Your task to perform on an android device: Go to privacy settings Image 0: 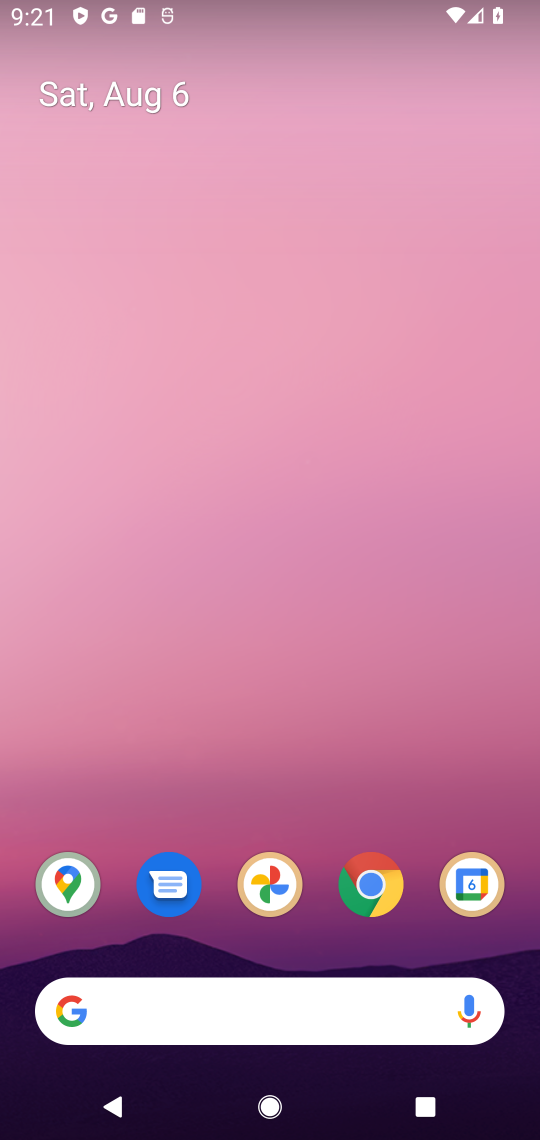
Step 0: drag from (421, 951) to (374, 204)
Your task to perform on an android device: Go to privacy settings Image 1: 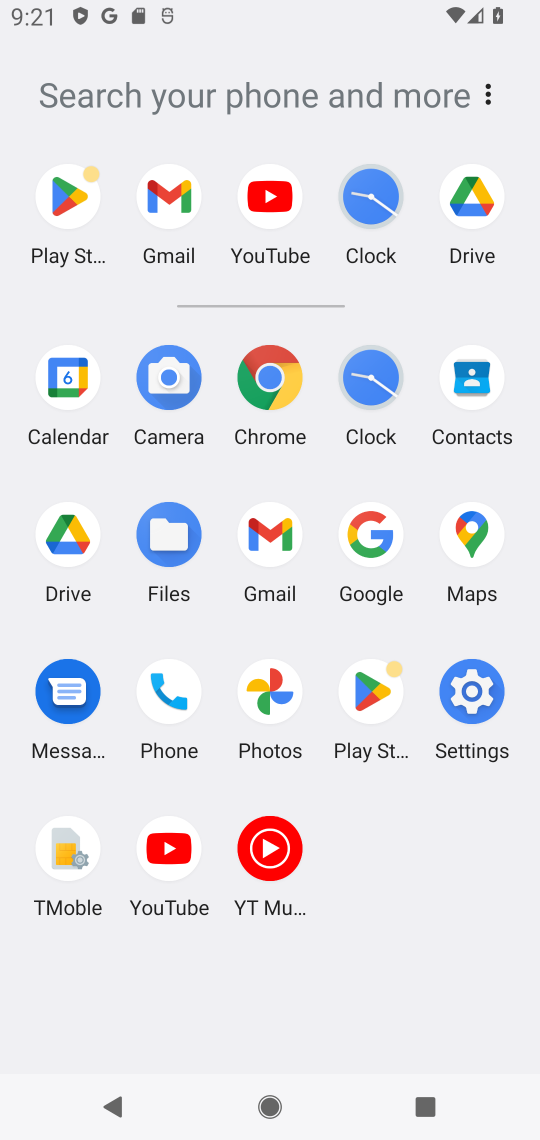
Step 1: click (470, 687)
Your task to perform on an android device: Go to privacy settings Image 2: 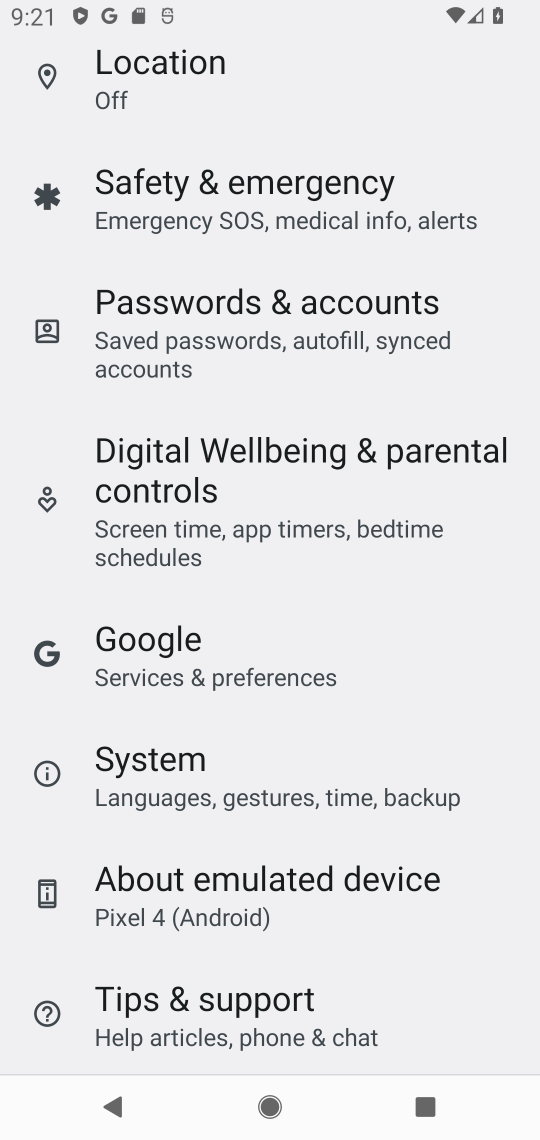
Step 2: drag from (506, 344) to (489, 688)
Your task to perform on an android device: Go to privacy settings Image 3: 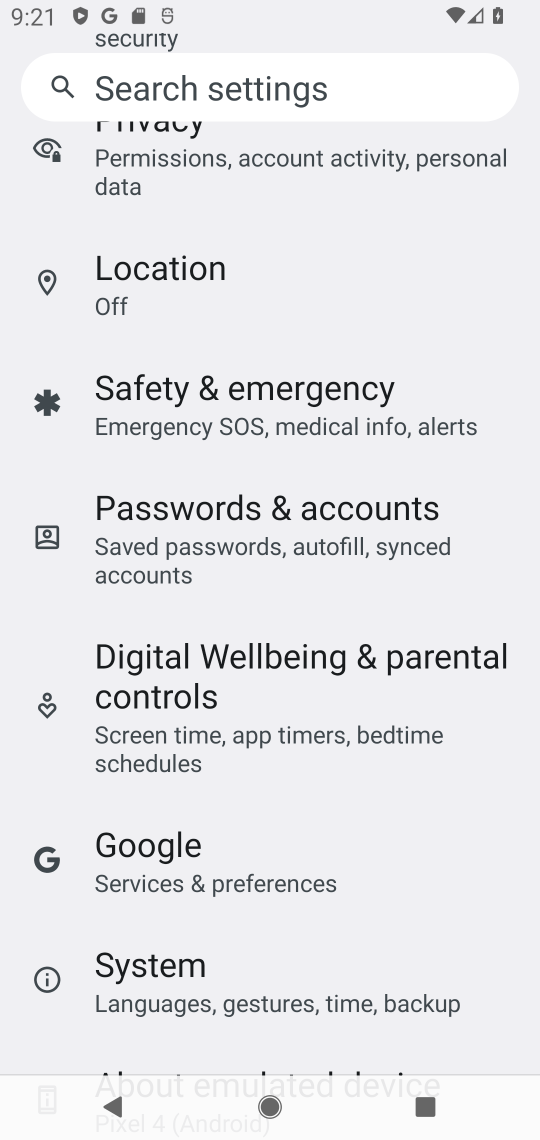
Step 3: drag from (481, 271) to (468, 748)
Your task to perform on an android device: Go to privacy settings Image 4: 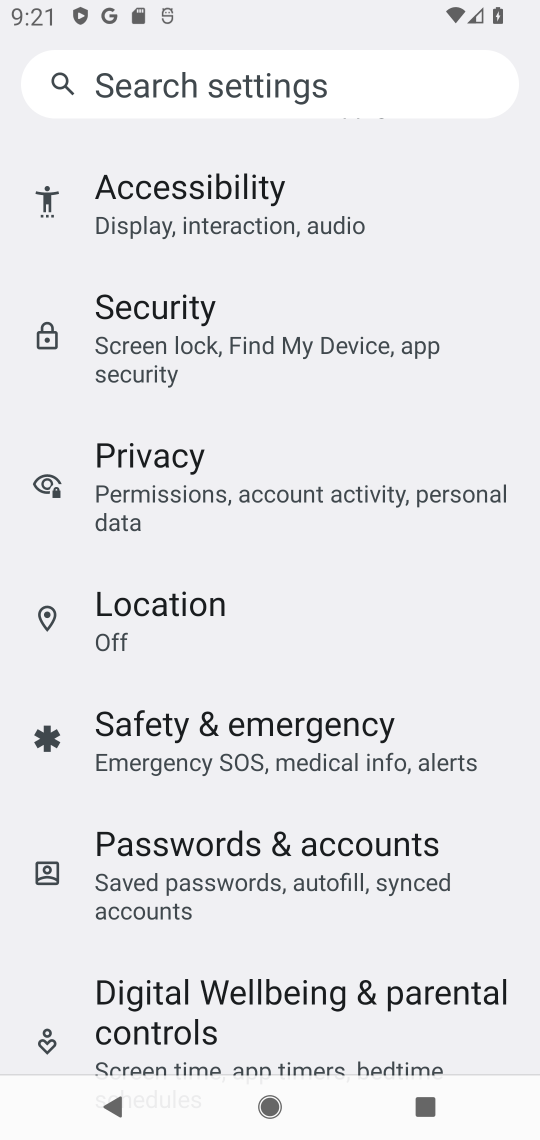
Step 4: click (148, 468)
Your task to perform on an android device: Go to privacy settings Image 5: 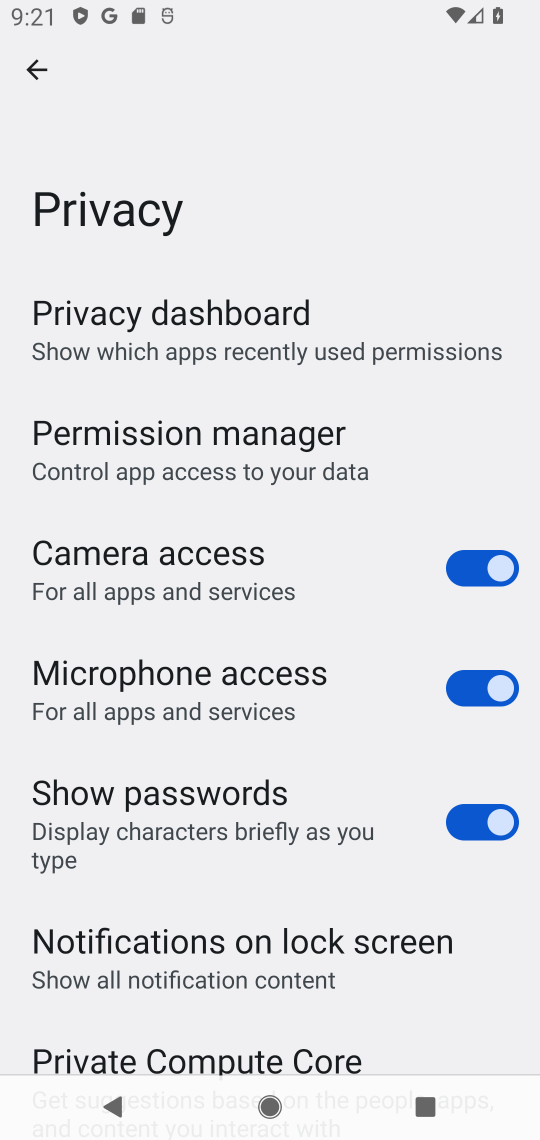
Step 5: task complete